Your task to perform on an android device: Go to display settings Image 0: 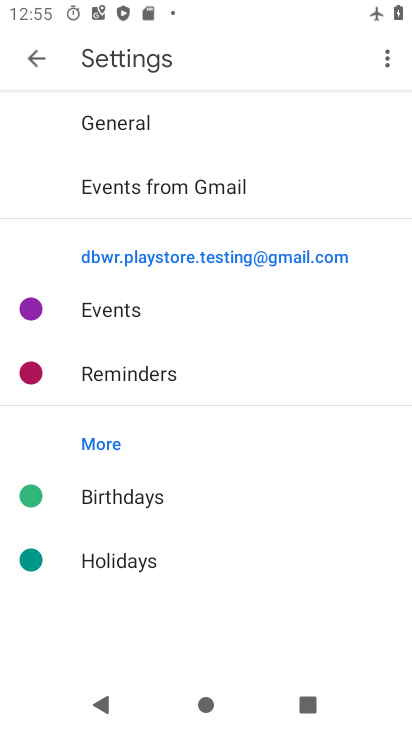
Step 0: press home button
Your task to perform on an android device: Go to display settings Image 1: 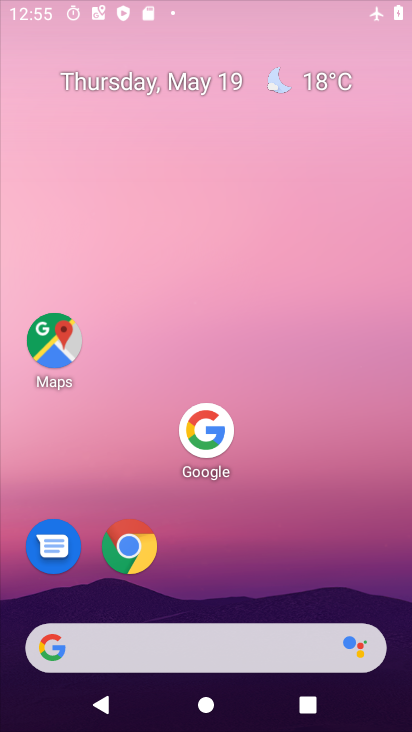
Step 1: drag from (260, 551) to (266, 82)
Your task to perform on an android device: Go to display settings Image 2: 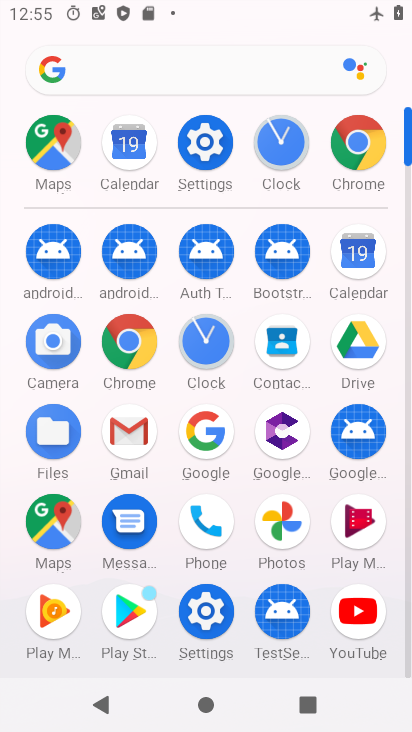
Step 2: click (205, 131)
Your task to perform on an android device: Go to display settings Image 3: 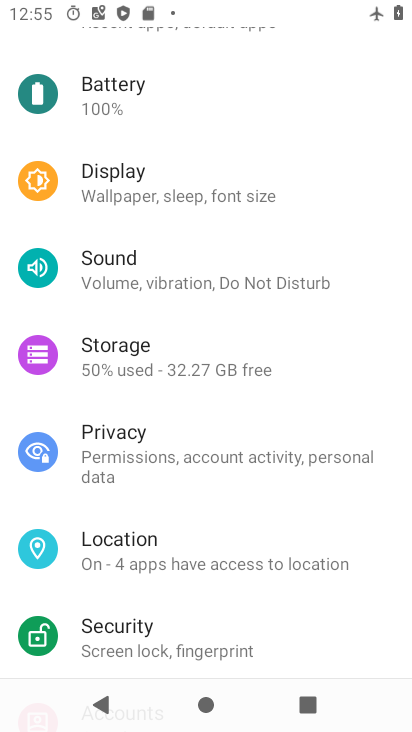
Step 3: click (163, 183)
Your task to perform on an android device: Go to display settings Image 4: 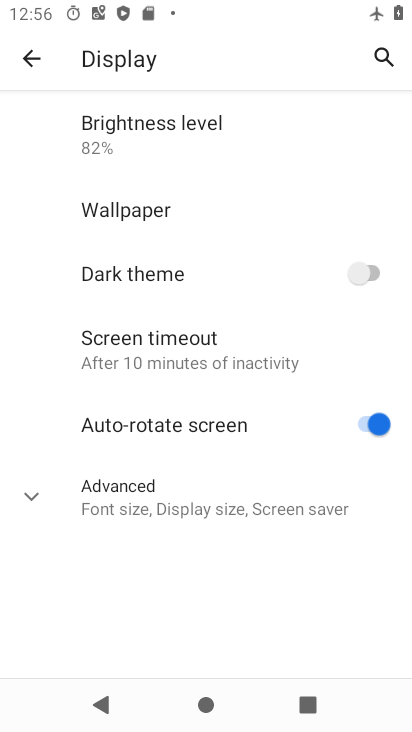
Step 4: task complete